Your task to perform on an android device: Open notification settings Image 0: 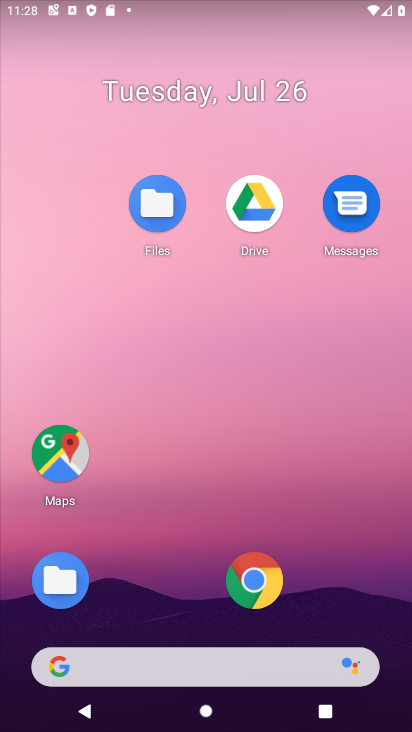
Step 0: drag from (162, 629) to (95, 192)
Your task to perform on an android device: Open notification settings Image 1: 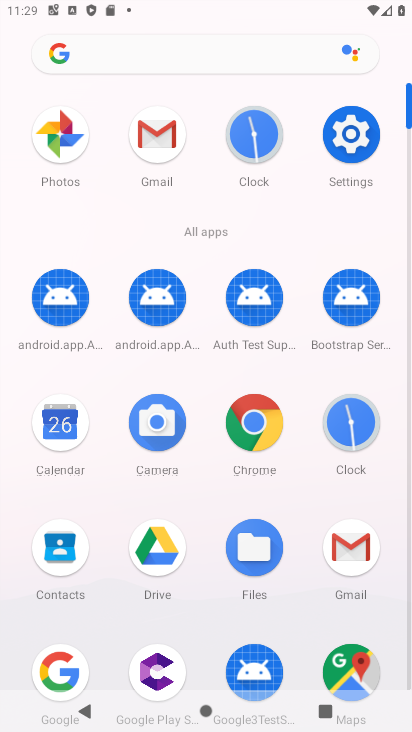
Step 1: click (366, 136)
Your task to perform on an android device: Open notification settings Image 2: 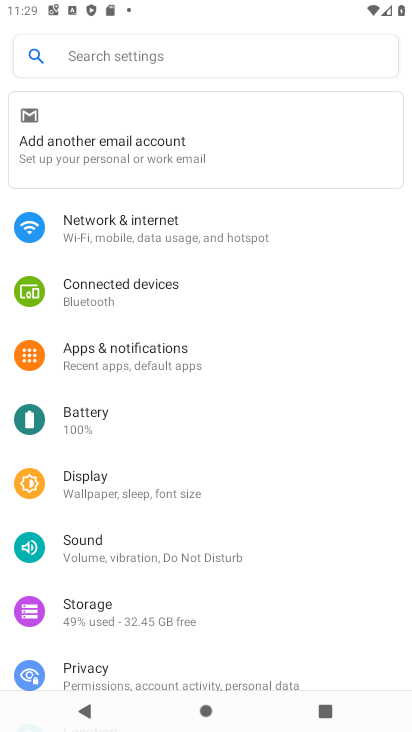
Step 2: click (73, 365)
Your task to perform on an android device: Open notification settings Image 3: 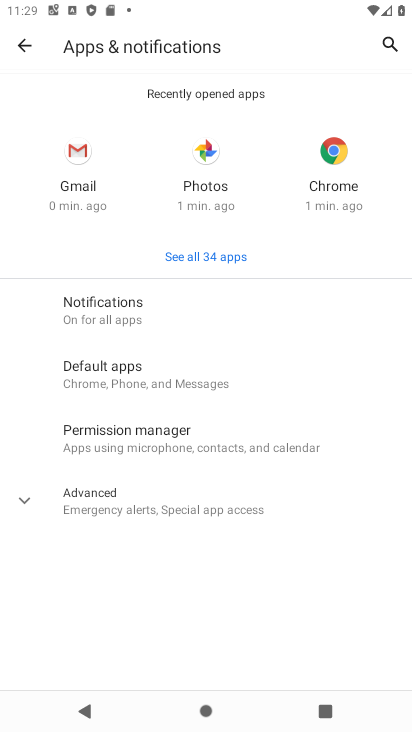
Step 3: task complete